Your task to perform on an android device: install app "Chime – Mobile Banking" Image 0: 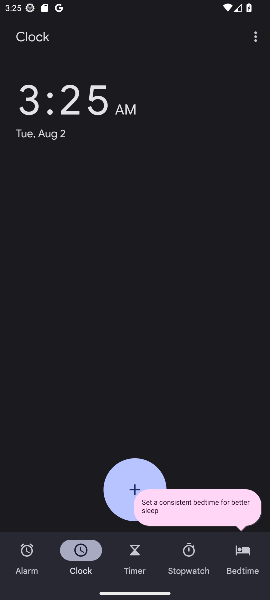
Step 0: press home button
Your task to perform on an android device: install app "Chime – Mobile Banking" Image 1: 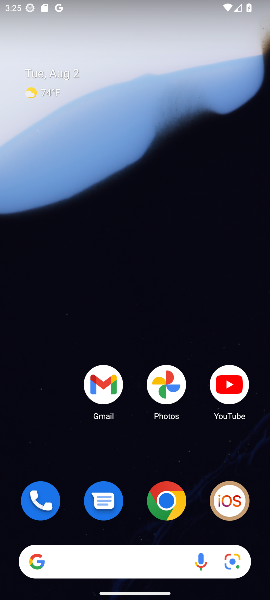
Step 1: drag from (143, 448) to (104, 44)
Your task to perform on an android device: install app "Chime – Mobile Banking" Image 2: 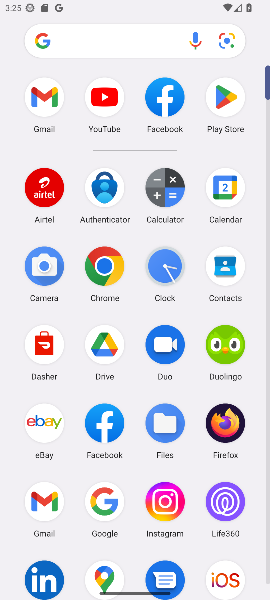
Step 2: click (220, 97)
Your task to perform on an android device: install app "Chime – Mobile Banking" Image 3: 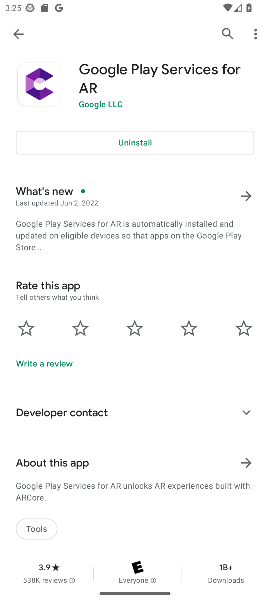
Step 3: click (223, 35)
Your task to perform on an android device: install app "Chime – Mobile Banking" Image 4: 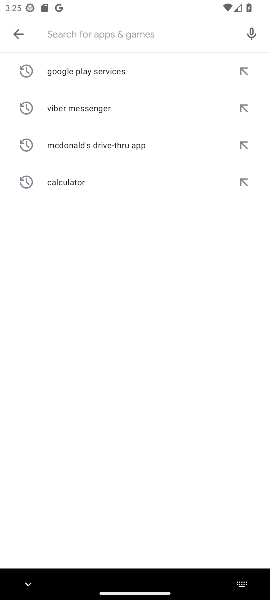
Step 4: type "Chime – Mobile Banking"
Your task to perform on an android device: install app "Chime – Mobile Banking" Image 5: 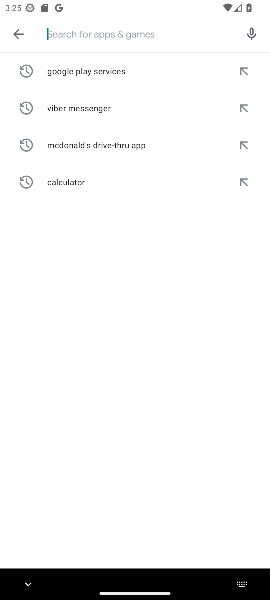
Step 5: type "Chime  Mobile Banking"
Your task to perform on an android device: install app "Chime – Mobile Banking" Image 6: 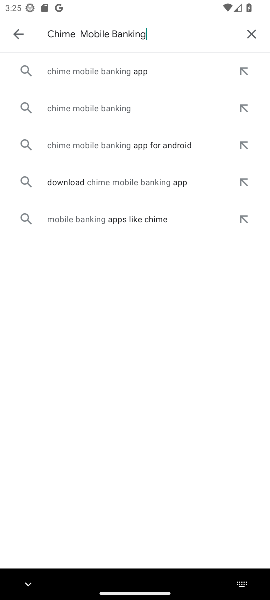
Step 6: click (117, 67)
Your task to perform on an android device: install app "Chime – Mobile Banking" Image 7: 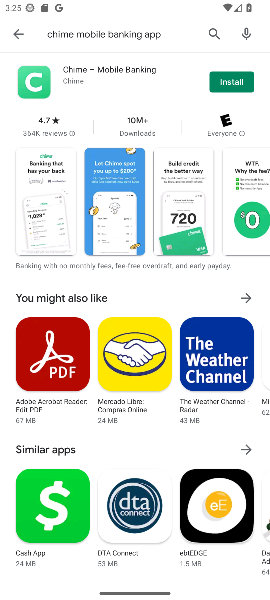
Step 7: click (224, 82)
Your task to perform on an android device: install app "Chime – Mobile Banking" Image 8: 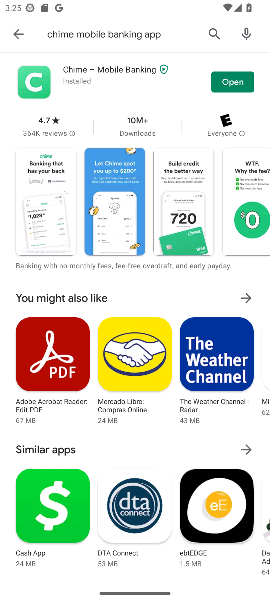
Step 8: task complete